Your task to perform on an android device: change the clock display to digital Image 0: 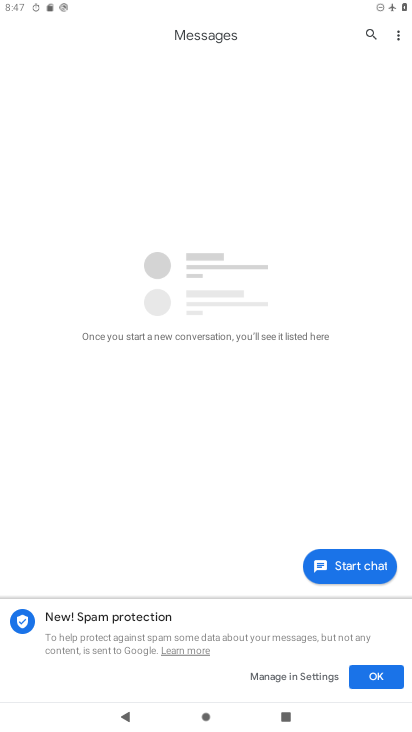
Step 0: press home button
Your task to perform on an android device: change the clock display to digital Image 1: 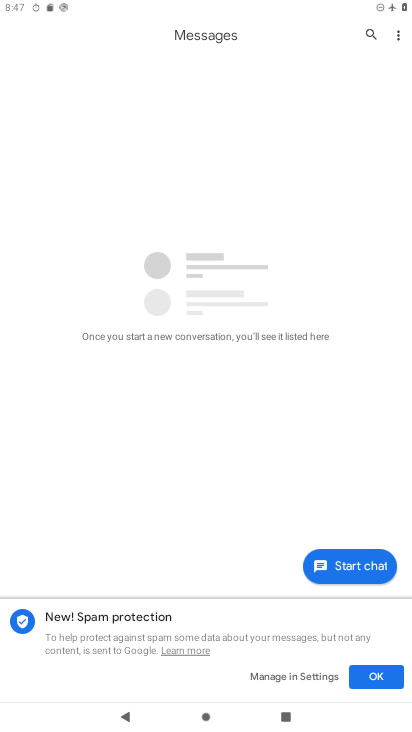
Step 1: press home button
Your task to perform on an android device: change the clock display to digital Image 2: 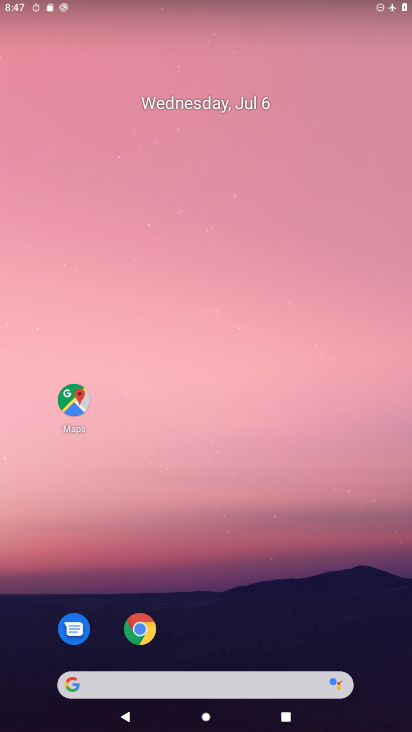
Step 2: drag from (234, 731) to (222, 94)
Your task to perform on an android device: change the clock display to digital Image 3: 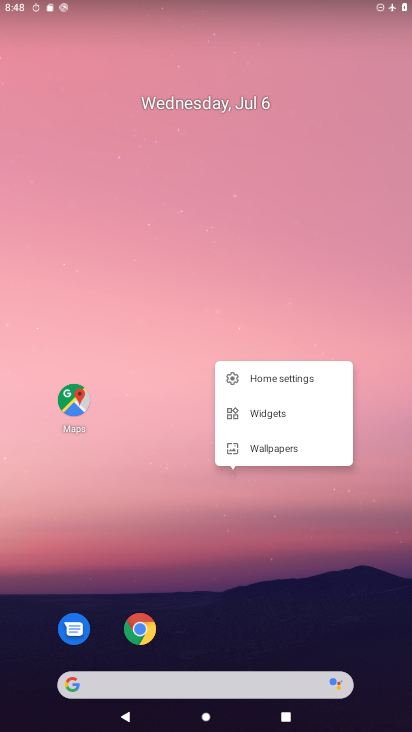
Step 3: click (235, 194)
Your task to perform on an android device: change the clock display to digital Image 4: 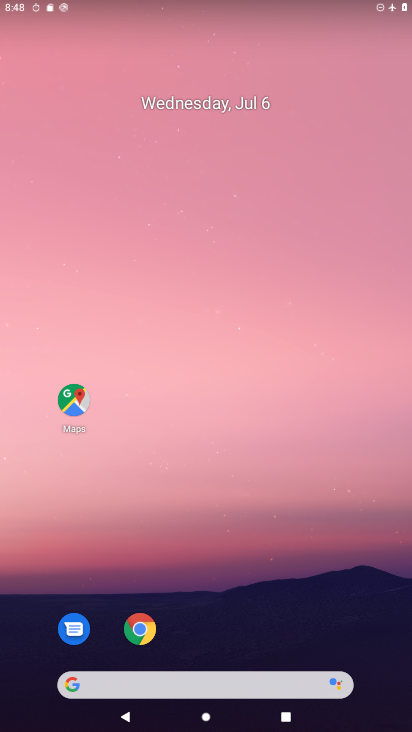
Step 4: drag from (262, 722) to (250, 78)
Your task to perform on an android device: change the clock display to digital Image 5: 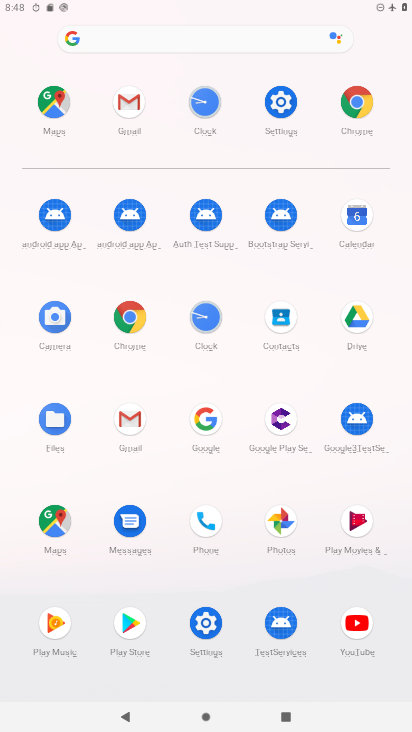
Step 5: click (198, 316)
Your task to perform on an android device: change the clock display to digital Image 6: 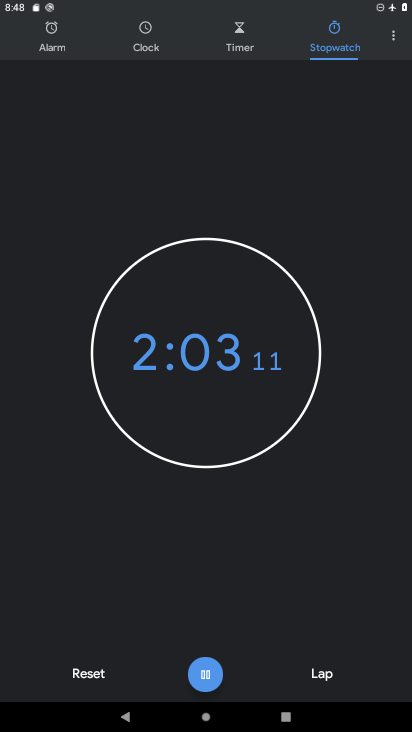
Step 6: click (394, 36)
Your task to perform on an android device: change the clock display to digital Image 7: 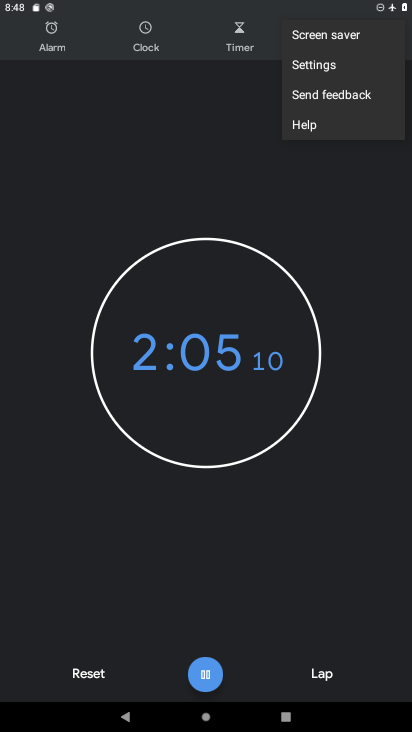
Step 7: click (313, 61)
Your task to perform on an android device: change the clock display to digital Image 8: 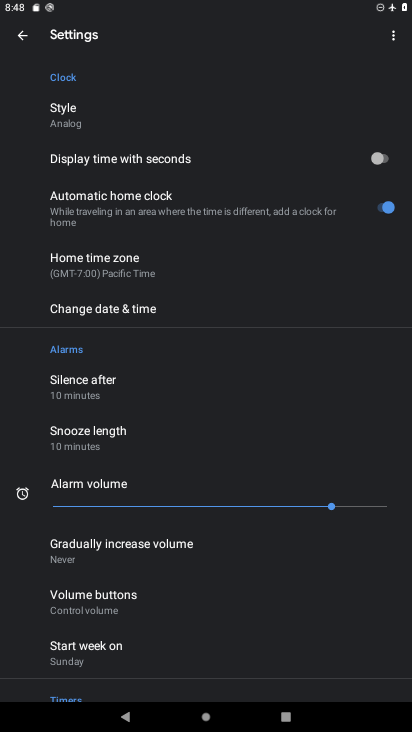
Step 8: click (67, 122)
Your task to perform on an android device: change the clock display to digital Image 9: 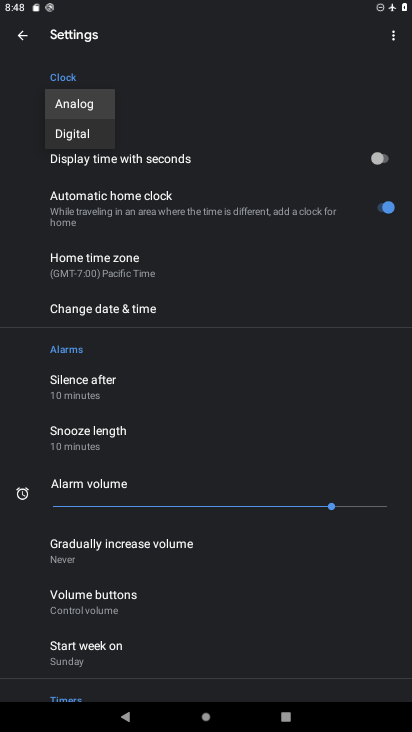
Step 9: click (90, 125)
Your task to perform on an android device: change the clock display to digital Image 10: 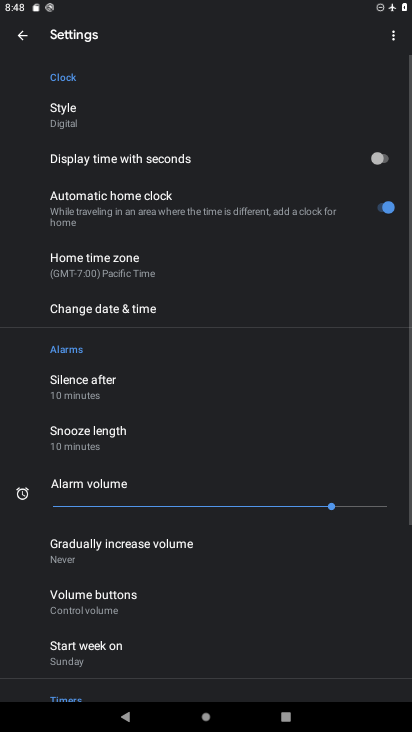
Step 10: task complete